Your task to perform on an android device: turn notification dots on Image 0: 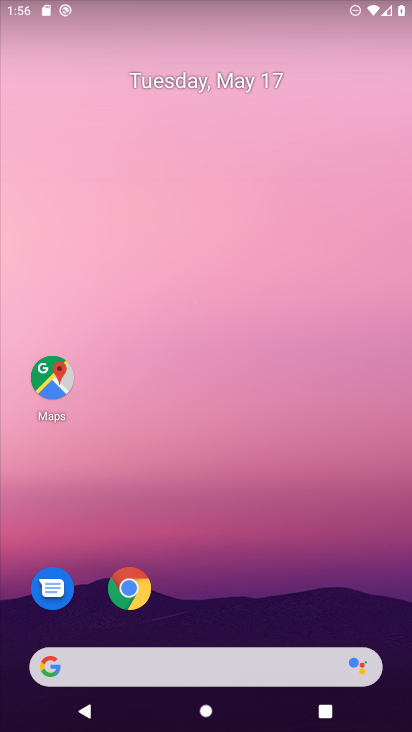
Step 0: drag from (219, 548) to (63, 72)
Your task to perform on an android device: turn notification dots on Image 1: 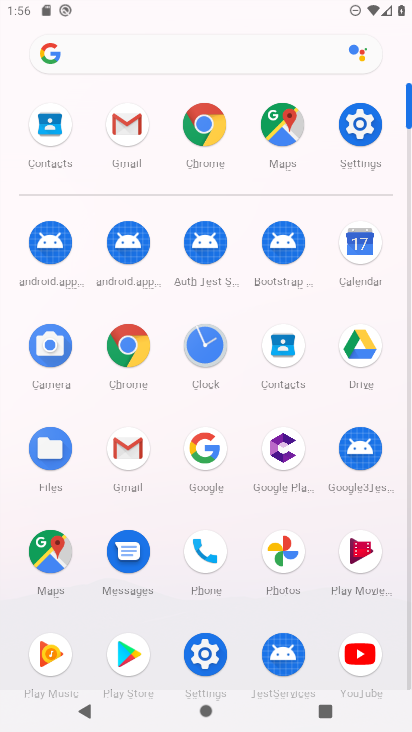
Step 1: click (355, 126)
Your task to perform on an android device: turn notification dots on Image 2: 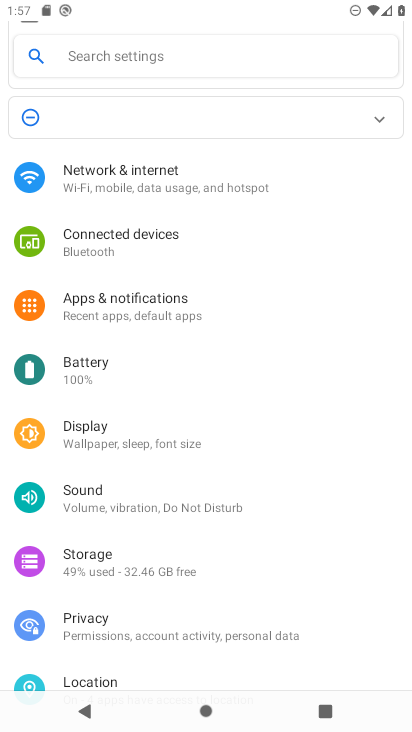
Step 2: click (131, 310)
Your task to perform on an android device: turn notification dots on Image 3: 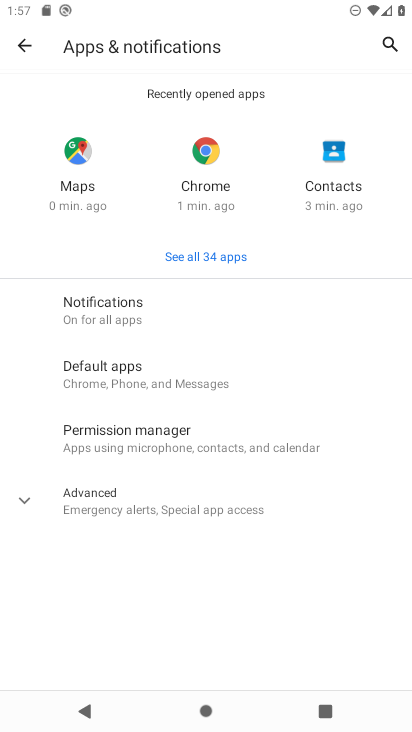
Step 3: click (131, 310)
Your task to perform on an android device: turn notification dots on Image 4: 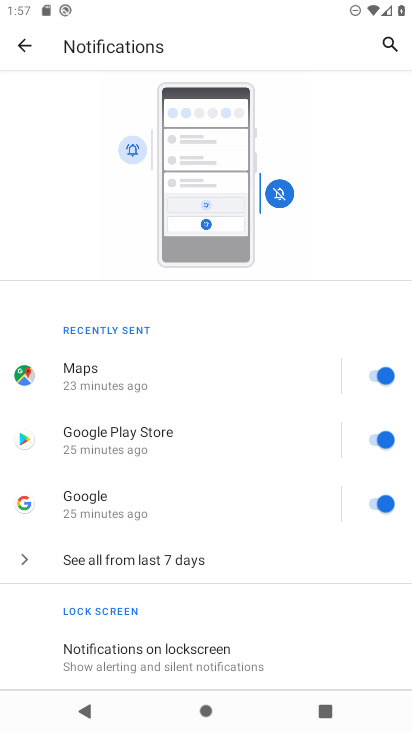
Step 4: drag from (177, 669) to (133, 222)
Your task to perform on an android device: turn notification dots on Image 5: 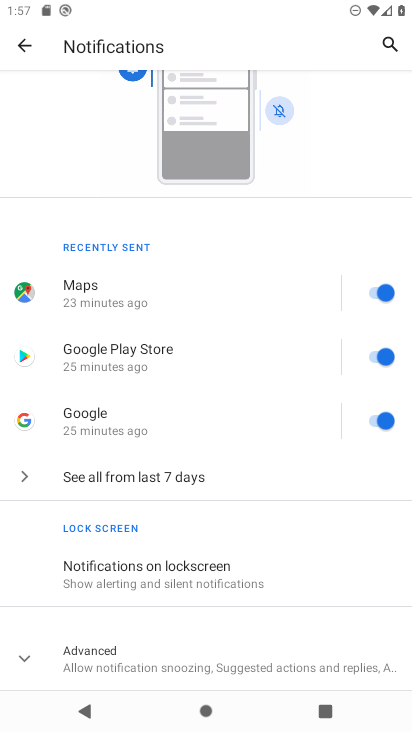
Step 5: click (188, 676)
Your task to perform on an android device: turn notification dots on Image 6: 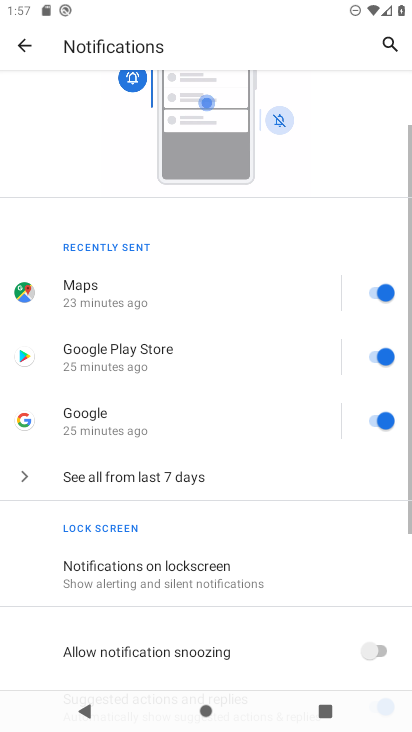
Step 6: task complete